Your task to perform on an android device: move an email to a new category in the gmail app Image 0: 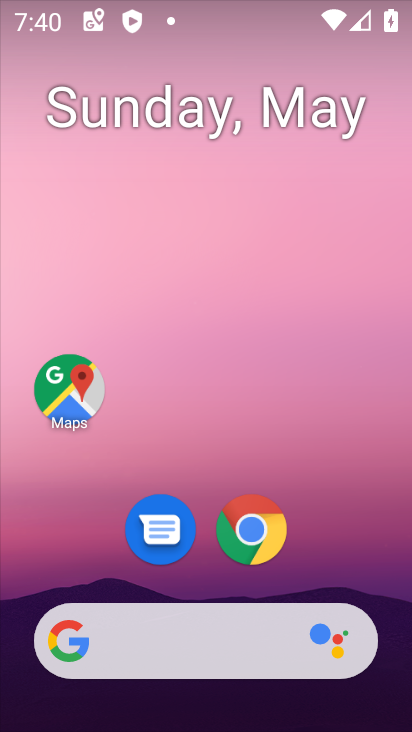
Step 0: drag from (378, 571) to (319, 0)
Your task to perform on an android device: move an email to a new category in the gmail app Image 1: 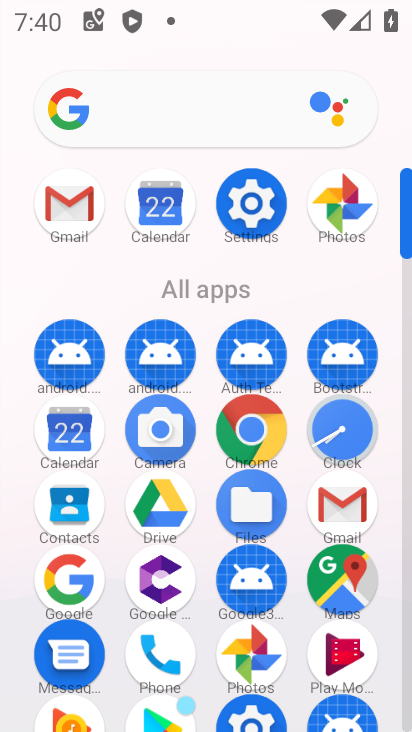
Step 1: click (76, 222)
Your task to perform on an android device: move an email to a new category in the gmail app Image 2: 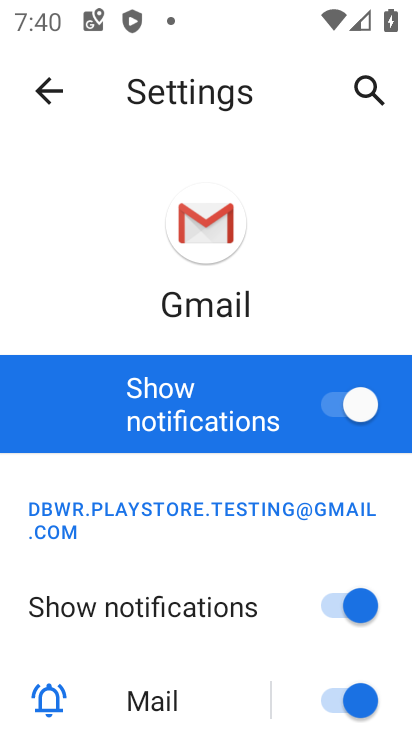
Step 2: click (46, 88)
Your task to perform on an android device: move an email to a new category in the gmail app Image 3: 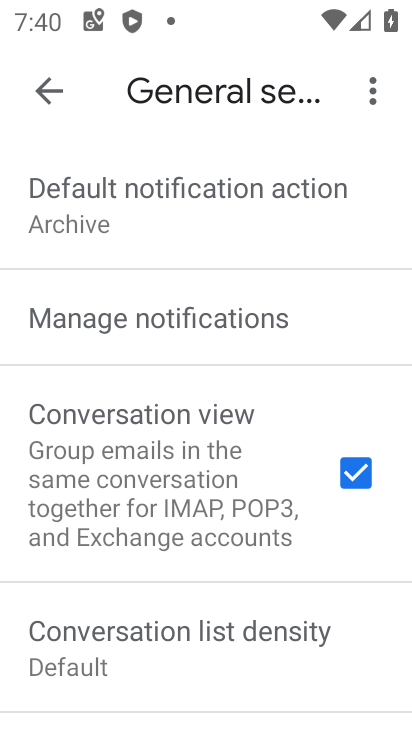
Step 3: click (46, 88)
Your task to perform on an android device: move an email to a new category in the gmail app Image 4: 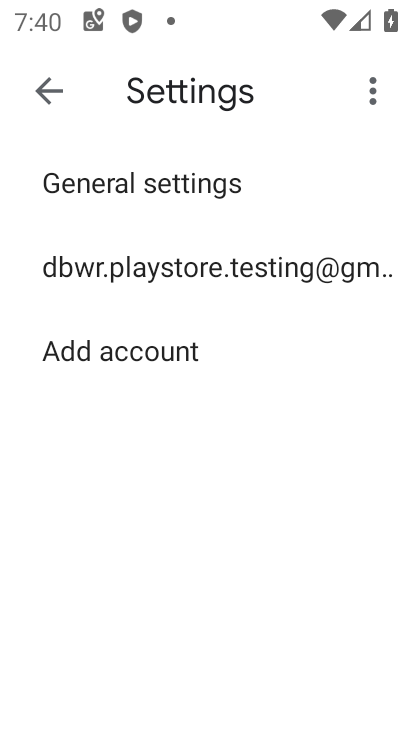
Step 4: click (45, 89)
Your task to perform on an android device: move an email to a new category in the gmail app Image 5: 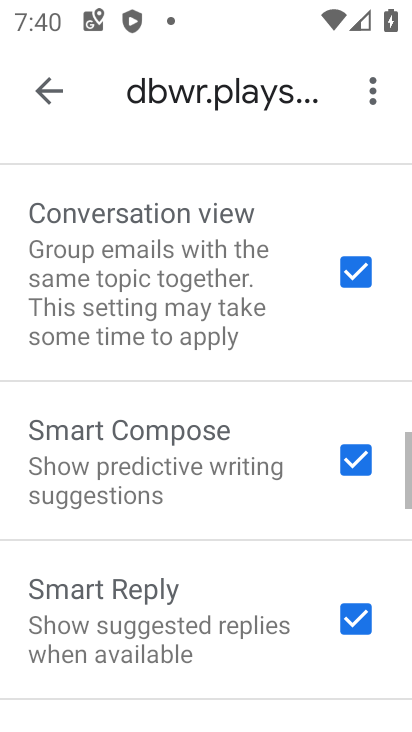
Step 5: click (45, 89)
Your task to perform on an android device: move an email to a new category in the gmail app Image 6: 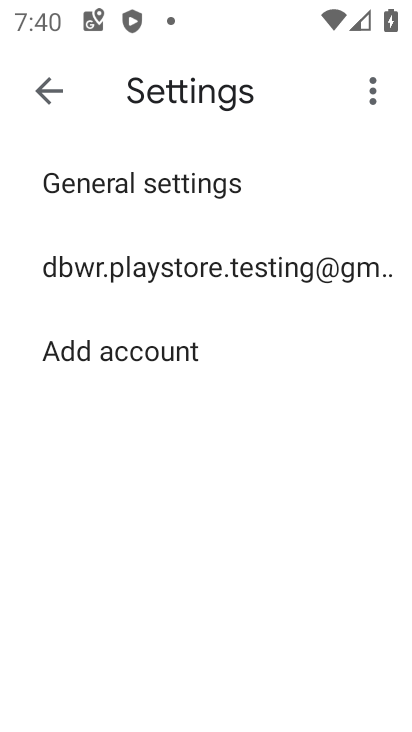
Step 6: click (45, 89)
Your task to perform on an android device: move an email to a new category in the gmail app Image 7: 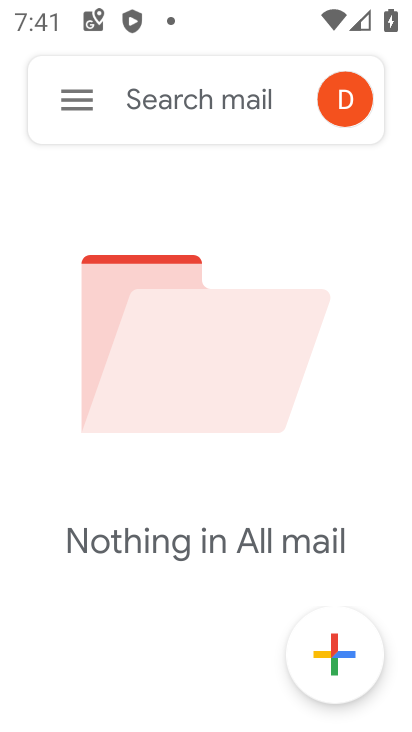
Step 7: task complete